Your task to perform on an android device: Go to eBay Image 0: 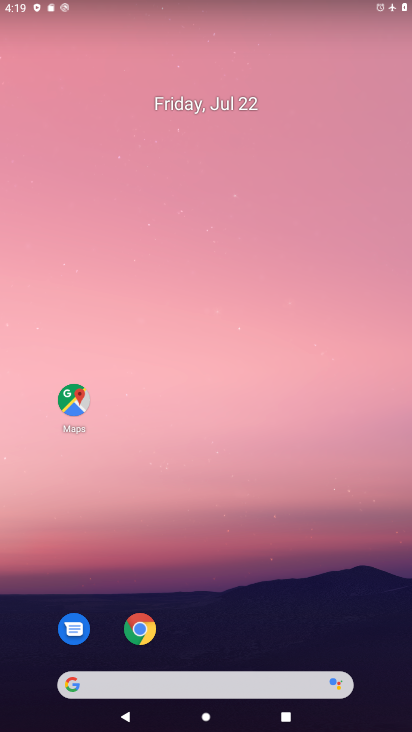
Step 0: drag from (287, 560) to (388, 8)
Your task to perform on an android device: Go to eBay Image 1: 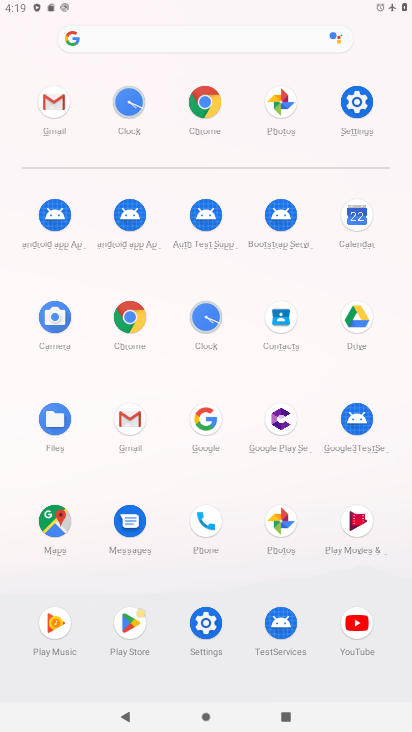
Step 1: click (206, 100)
Your task to perform on an android device: Go to eBay Image 2: 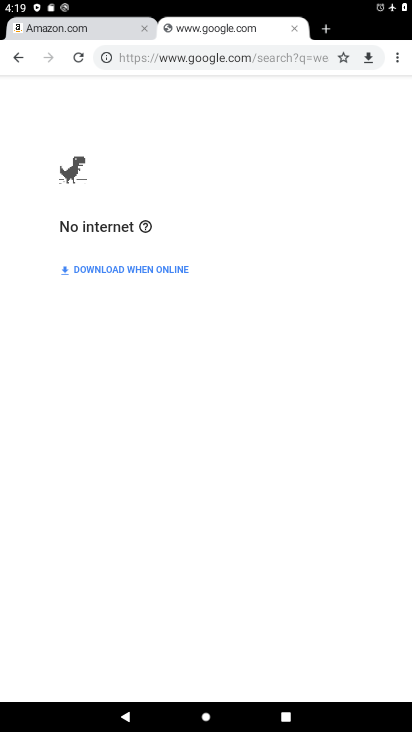
Step 2: click (252, 53)
Your task to perform on an android device: Go to eBay Image 3: 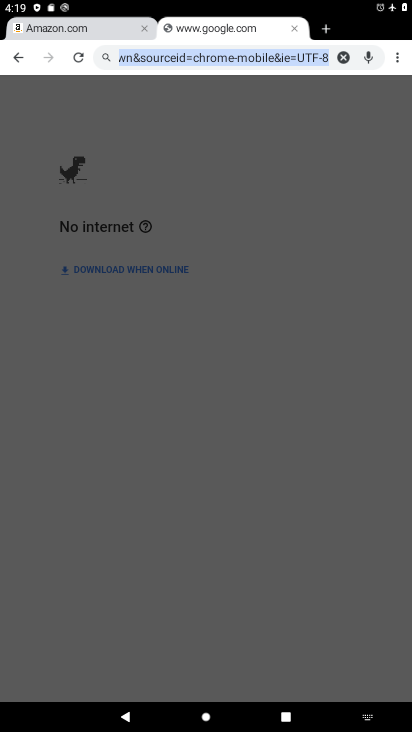
Step 3: type "ebay"
Your task to perform on an android device: Go to eBay Image 4: 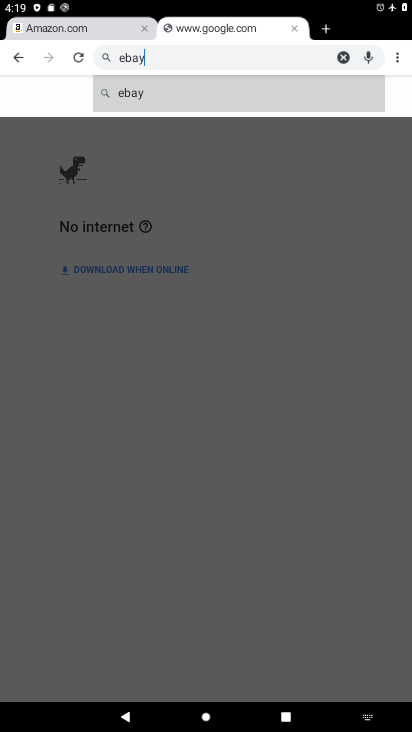
Step 4: click (205, 96)
Your task to perform on an android device: Go to eBay Image 5: 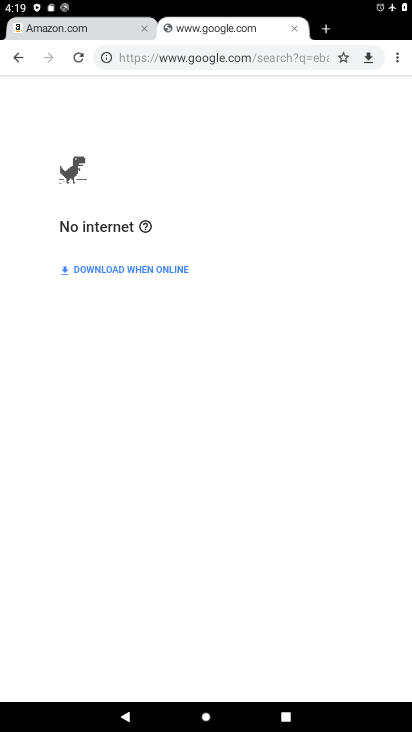
Step 5: task complete